Your task to perform on an android device: see creations saved in the google photos Image 0: 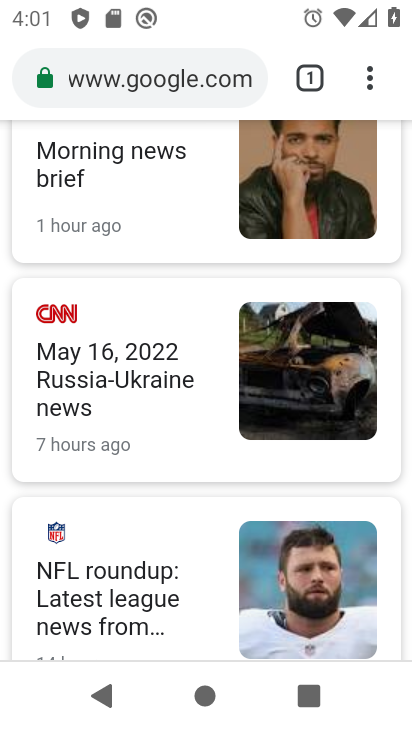
Step 0: press home button
Your task to perform on an android device: see creations saved in the google photos Image 1: 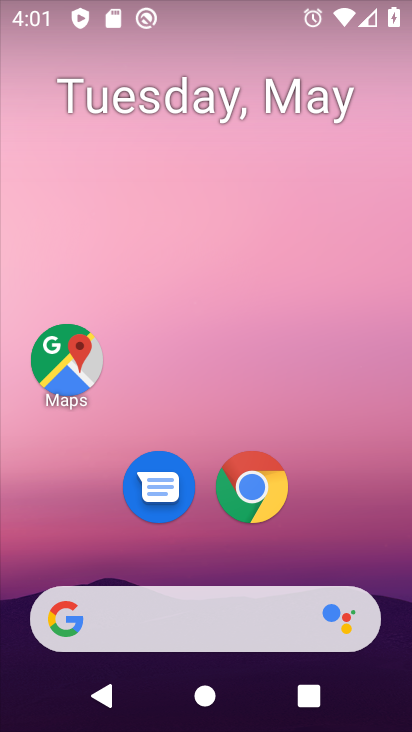
Step 1: drag from (321, 466) to (260, 62)
Your task to perform on an android device: see creations saved in the google photos Image 2: 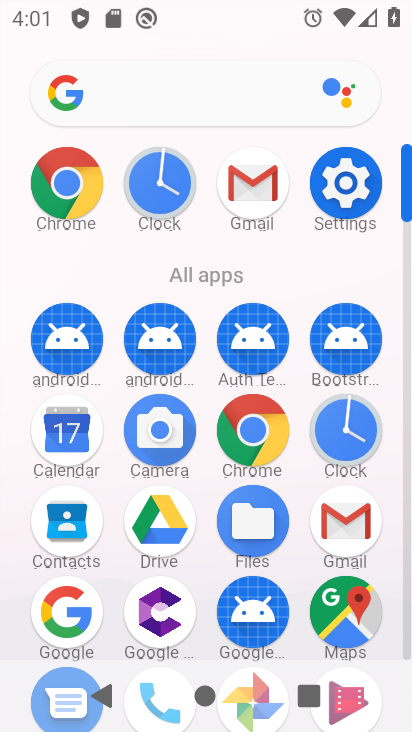
Step 2: drag from (297, 622) to (288, 282)
Your task to perform on an android device: see creations saved in the google photos Image 3: 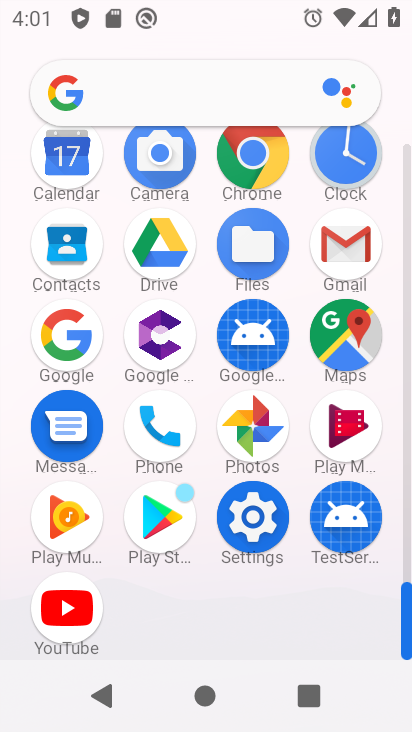
Step 3: click (259, 400)
Your task to perform on an android device: see creations saved in the google photos Image 4: 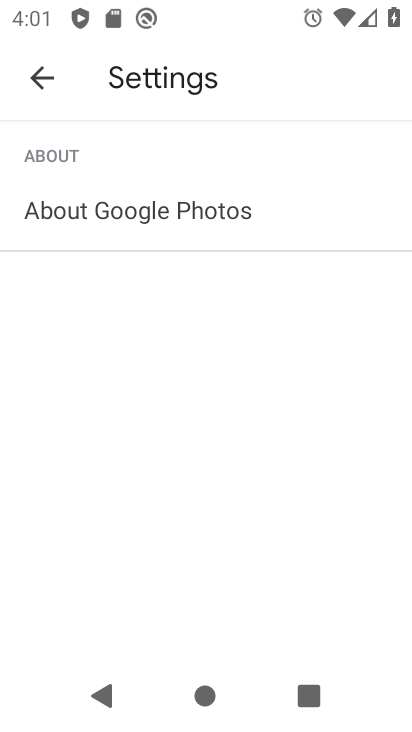
Step 4: click (47, 87)
Your task to perform on an android device: see creations saved in the google photos Image 5: 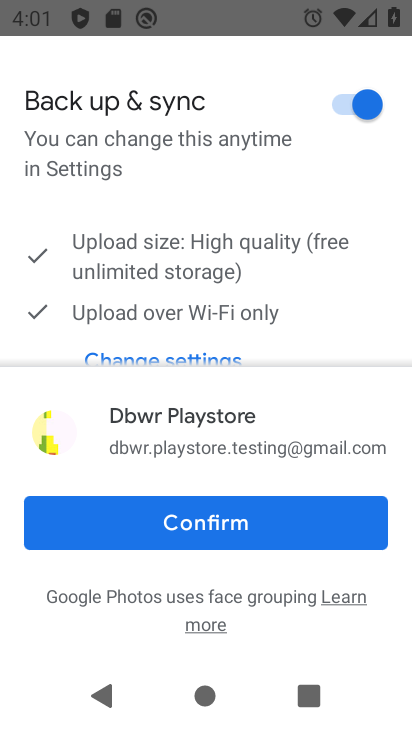
Step 5: click (266, 532)
Your task to perform on an android device: see creations saved in the google photos Image 6: 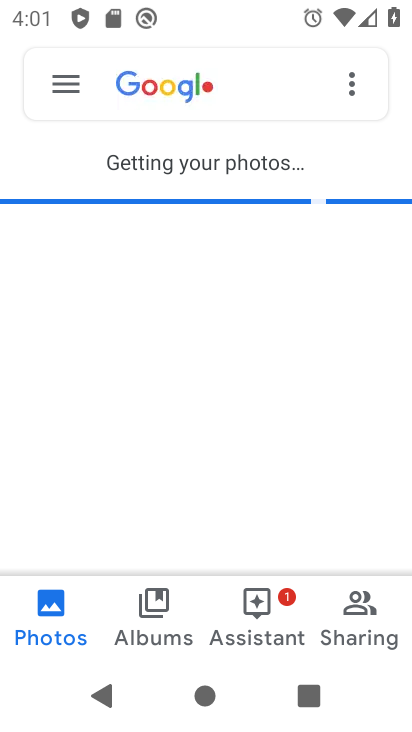
Step 6: click (356, 602)
Your task to perform on an android device: see creations saved in the google photos Image 7: 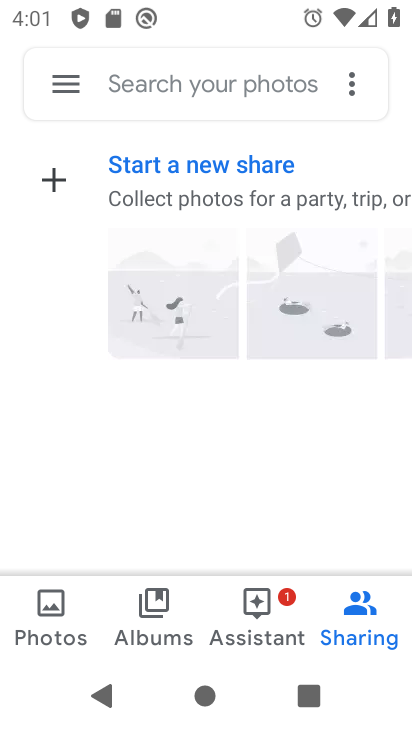
Step 7: click (266, 621)
Your task to perform on an android device: see creations saved in the google photos Image 8: 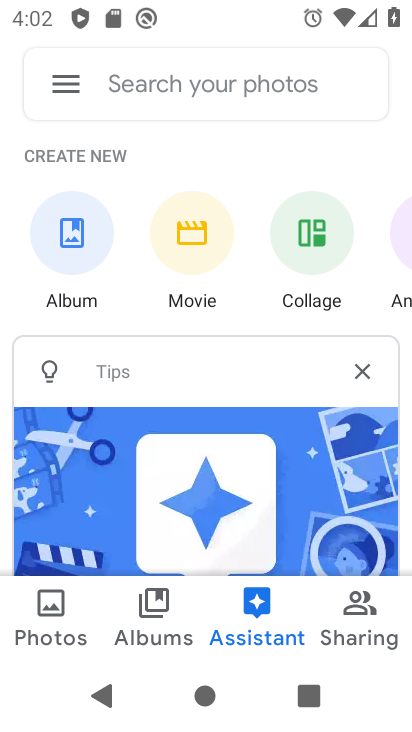
Step 8: task complete